Your task to perform on an android device: Open Chrome and go to settings Image 0: 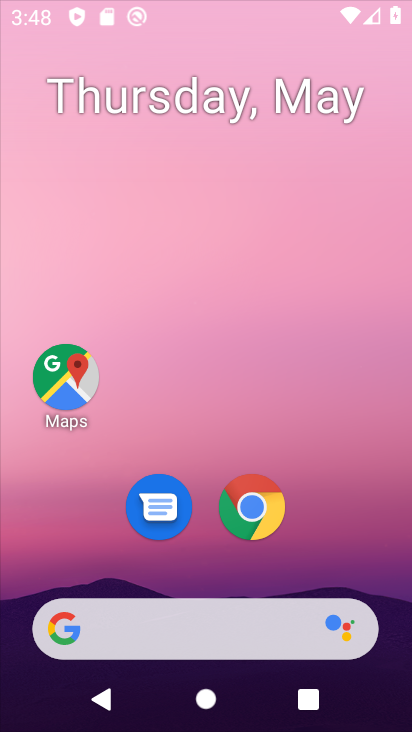
Step 0: click (154, 227)
Your task to perform on an android device: Open Chrome and go to settings Image 1: 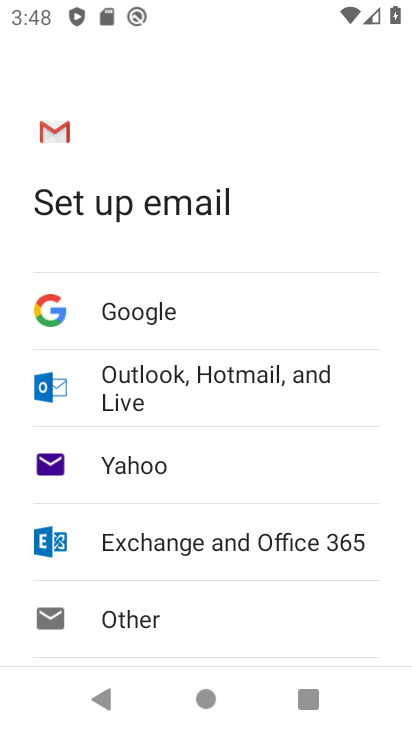
Step 1: press back button
Your task to perform on an android device: Open Chrome and go to settings Image 2: 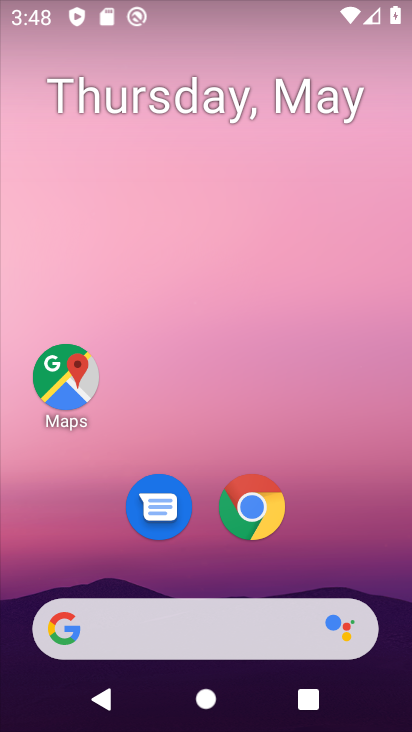
Step 2: drag from (362, 611) to (95, 8)
Your task to perform on an android device: Open Chrome and go to settings Image 3: 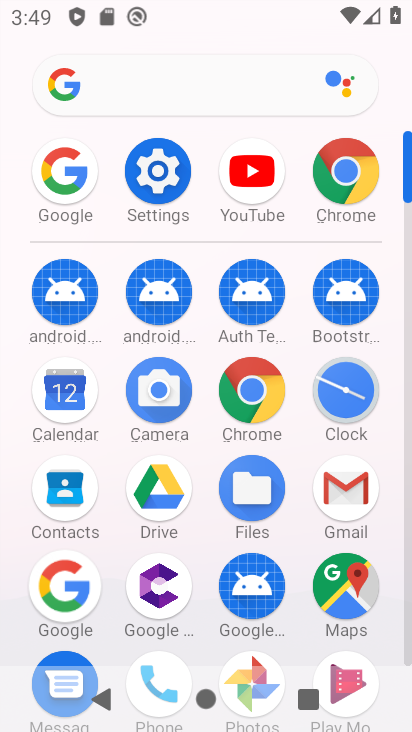
Step 3: click (340, 179)
Your task to perform on an android device: Open Chrome and go to settings Image 4: 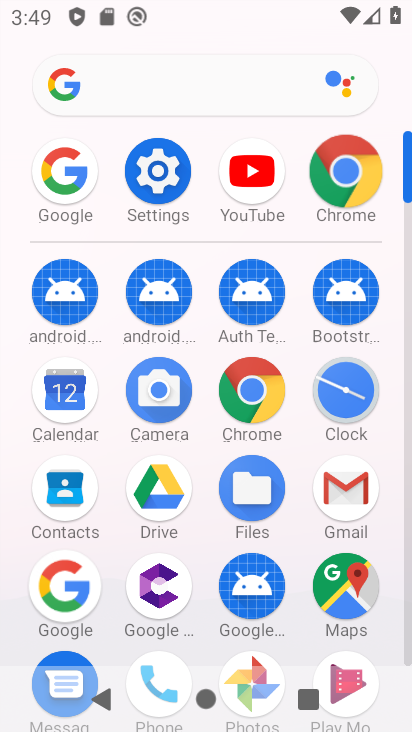
Step 4: click (341, 179)
Your task to perform on an android device: Open Chrome and go to settings Image 5: 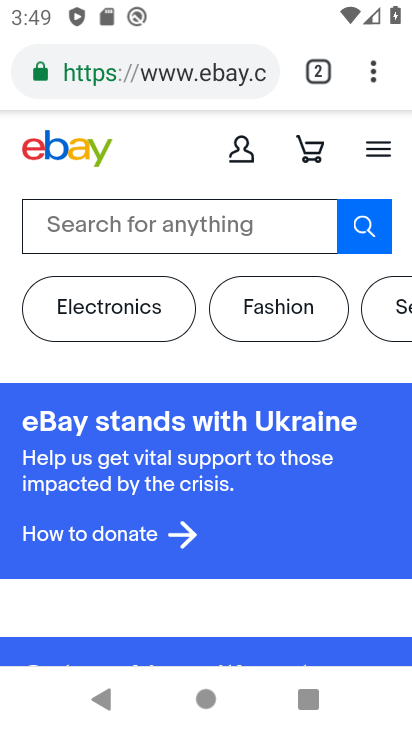
Step 5: drag from (376, 68) to (118, 501)
Your task to perform on an android device: Open Chrome and go to settings Image 6: 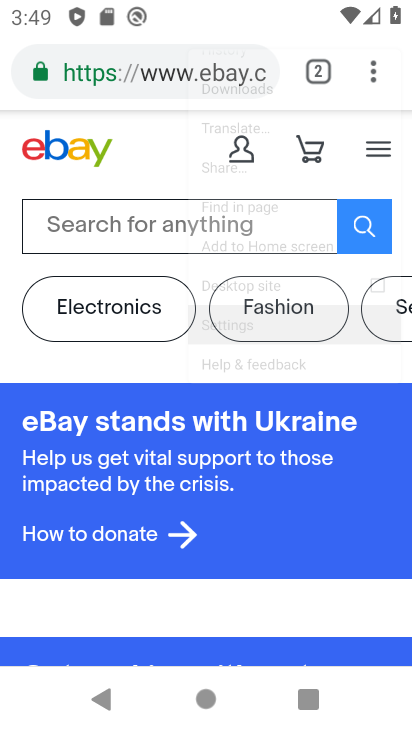
Step 6: click (122, 501)
Your task to perform on an android device: Open Chrome and go to settings Image 7: 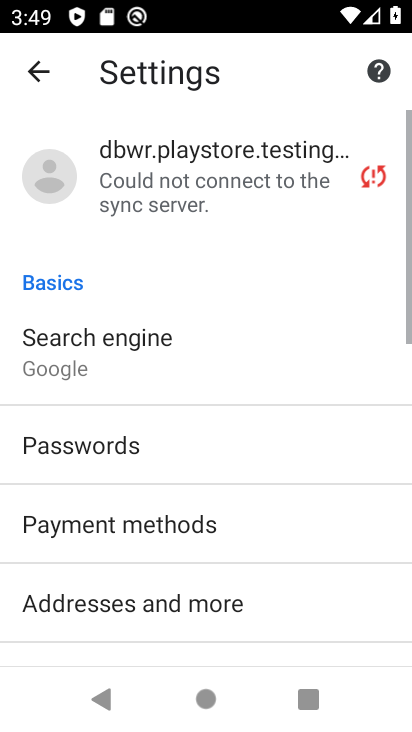
Step 7: task complete